Your task to perform on an android device: Open Google Image 0: 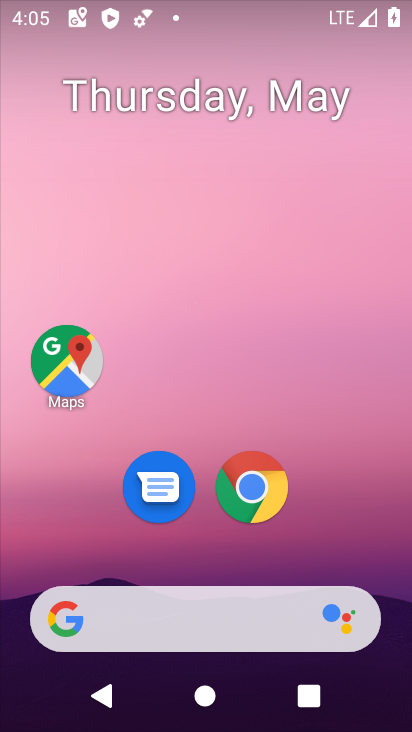
Step 0: drag from (222, 356) to (406, 284)
Your task to perform on an android device: Open Google Image 1: 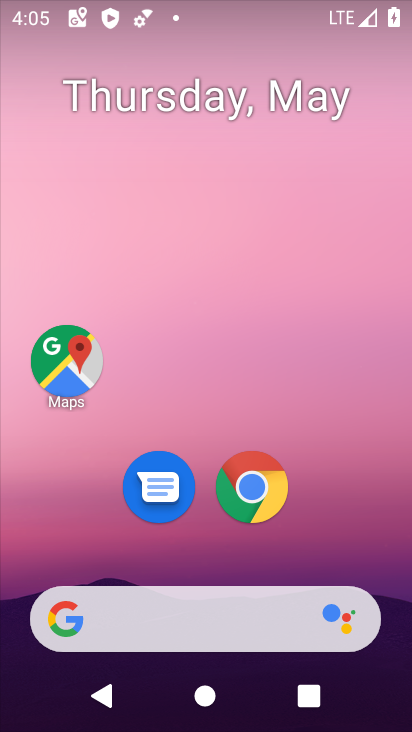
Step 1: drag from (262, 519) to (358, 7)
Your task to perform on an android device: Open Google Image 2: 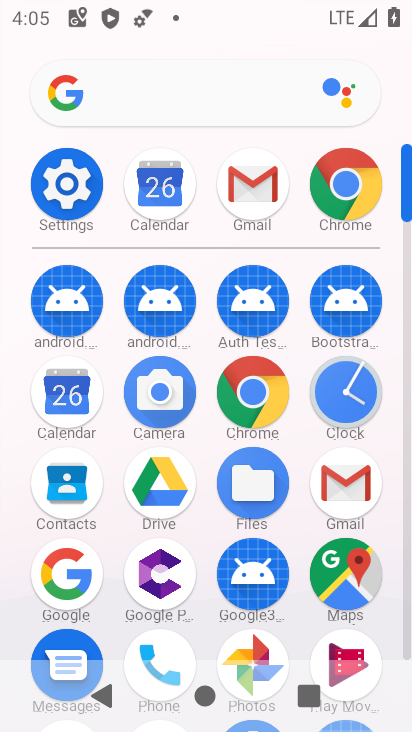
Step 2: drag from (245, 378) to (279, 154)
Your task to perform on an android device: Open Google Image 3: 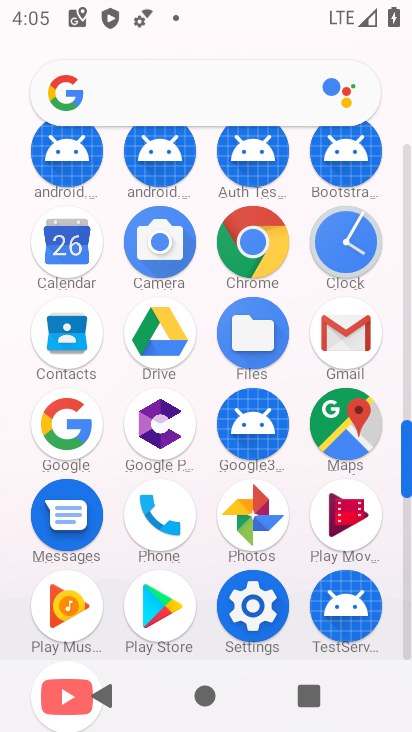
Step 3: click (61, 427)
Your task to perform on an android device: Open Google Image 4: 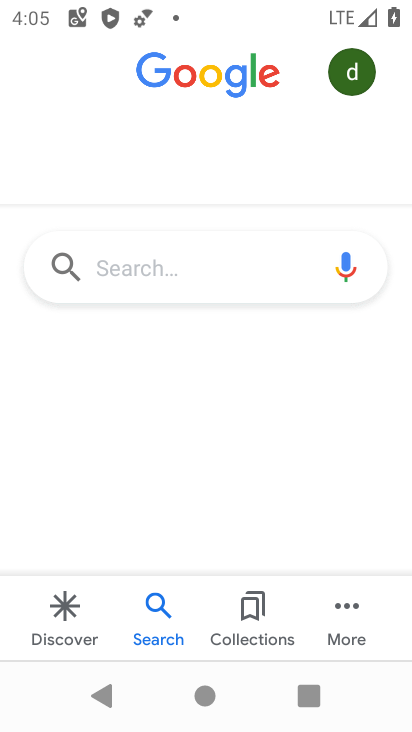
Step 4: task complete